Your task to perform on an android device: Search for vegetarian restaurants on Maps Image 0: 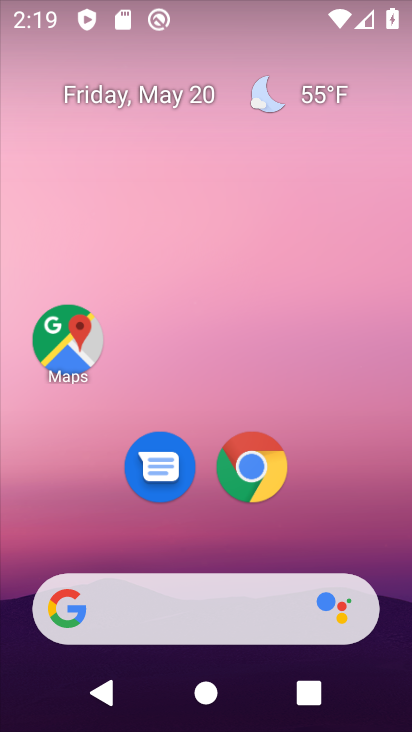
Step 0: click (74, 349)
Your task to perform on an android device: Search for vegetarian restaurants on Maps Image 1: 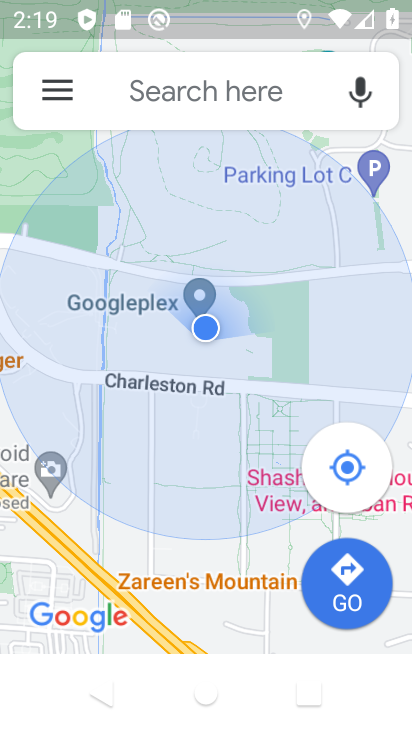
Step 1: click (176, 90)
Your task to perform on an android device: Search for vegetarian restaurants on Maps Image 2: 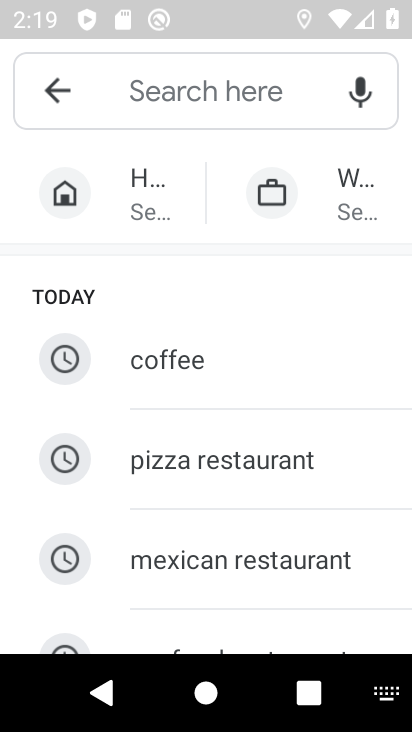
Step 2: type "vegetarian restaurants"
Your task to perform on an android device: Search for vegetarian restaurants on Maps Image 3: 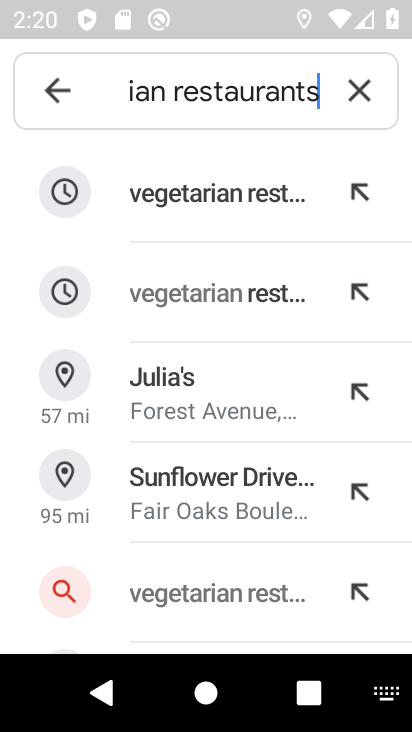
Step 3: click (215, 176)
Your task to perform on an android device: Search for vegetarian restaurants on Maps Image 4: 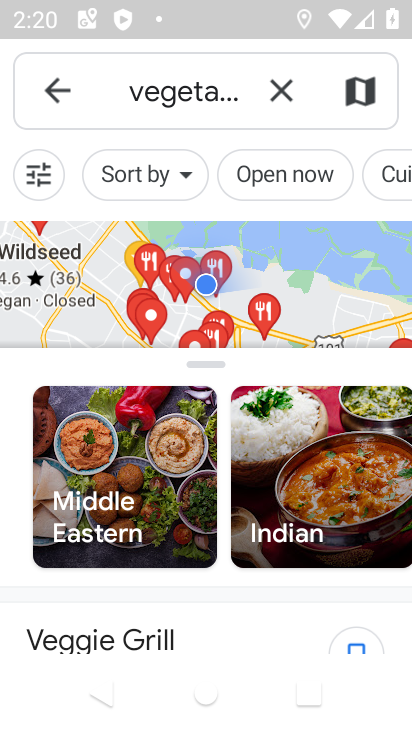
Step 4: task complete